Your task to perform on an android device: Turn off the flashlight Image 0: 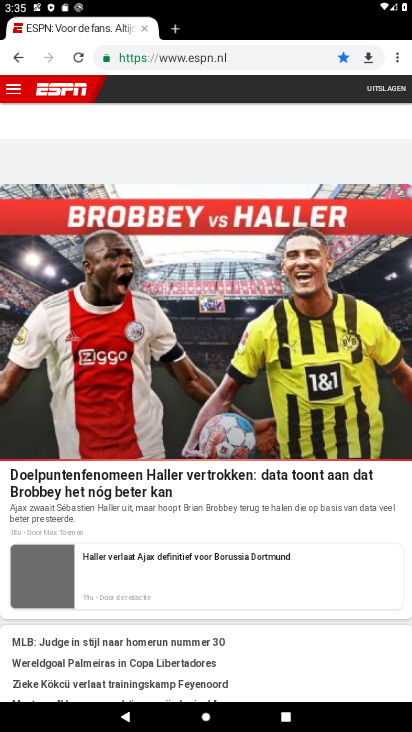
Step 0: press home button
Your task to perform on an android device: Turn off the flashlight Image 1: 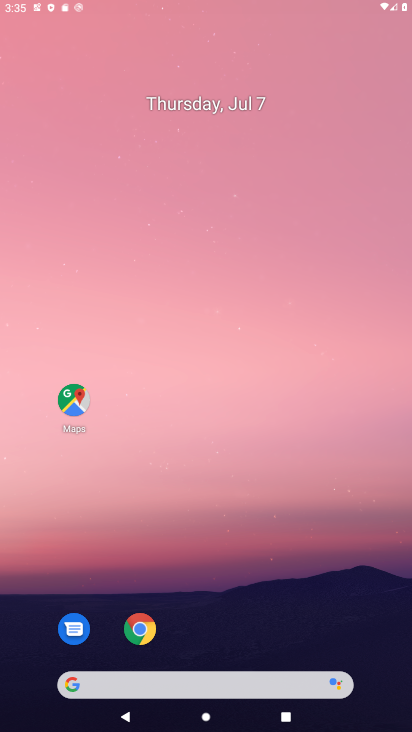
Step 1: drag from (249, 646) to (256, 355)
Your task to perform on an android device: Turn off the flashlight Image 2: 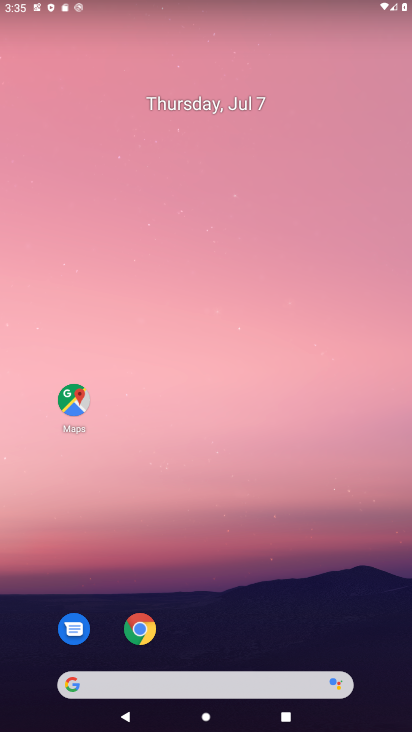
Step 2: drag from (228, 678) to (210, 206)
Your task to perform on an android device: Turn off the flashlight Image 3: 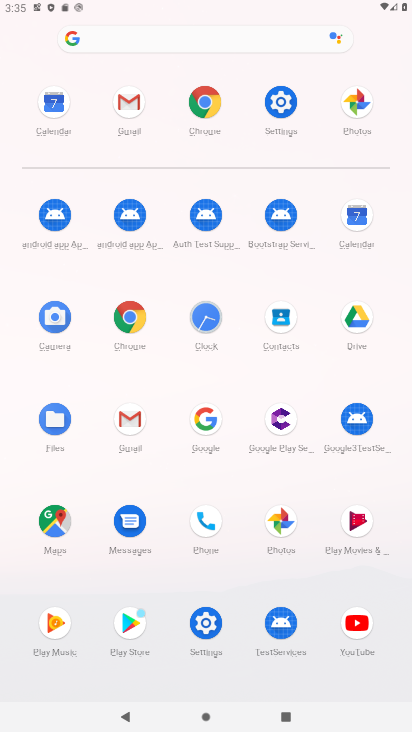
Step 3: click (219, 620)
Your task to perform on an android device: Turn off the flashlight Image 4: 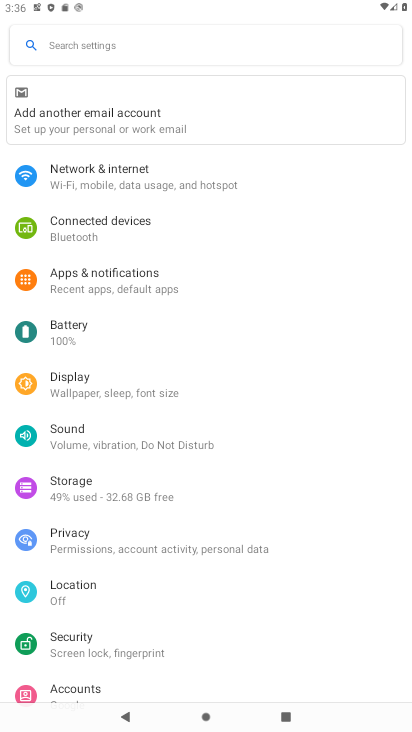
Step 4: task complete